Your task to perform on an android device: set the stopwatch Image 0: 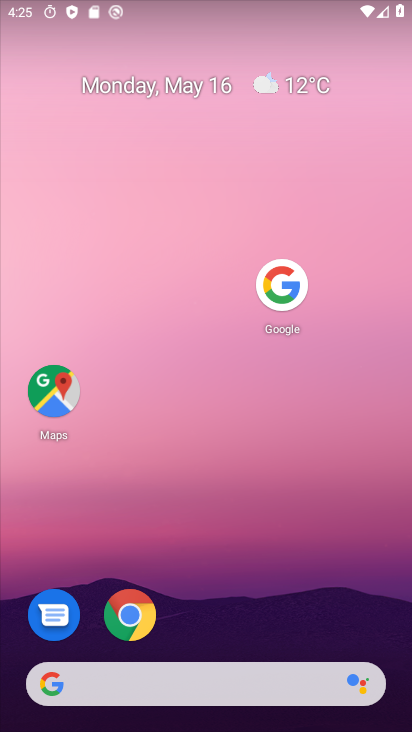
Step 0: drag from (214, 587) to (16, 131)
Your task to perform on an android device: set the stopwatch Image 1: 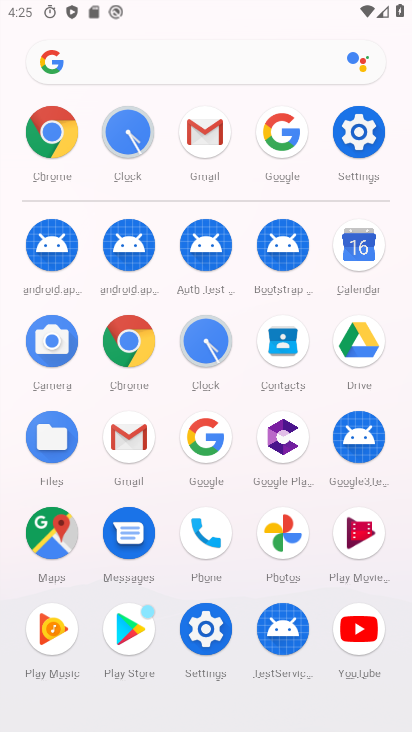
Step 1: click (213, 394)
Your task to perform on an android device: set the stopwatch Image 2: 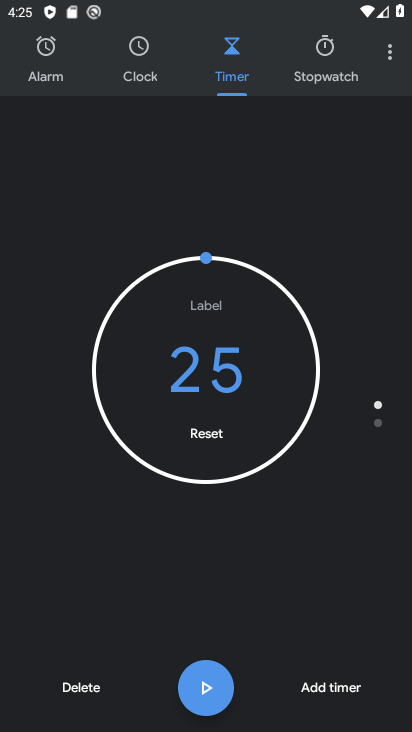
Step 2: click (306, 59)
Your task to perform on an android device: set the stopwatch Image 3: 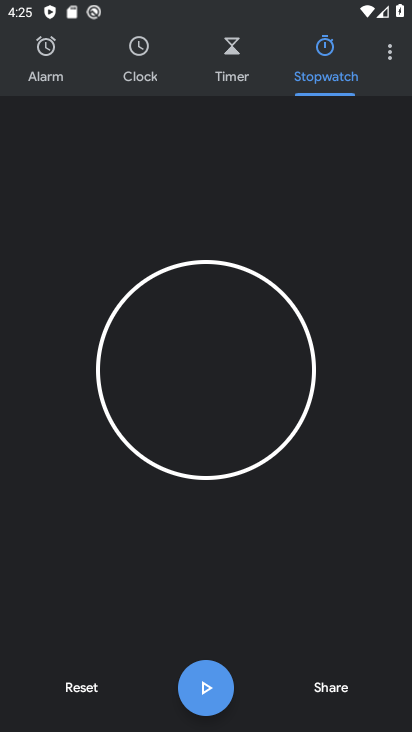
Step 3: click (209, 680)
Your task to perform on an android device: set the stopwatch Image 4: 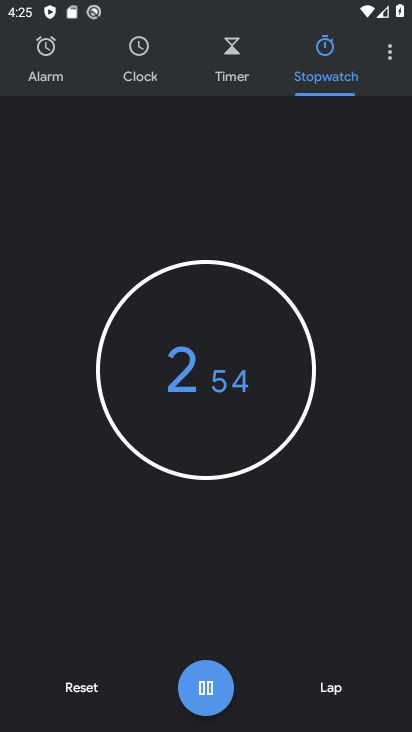
Step 4: click (202, 698)
Your task to perform on an android device: set the stopwatch Image 5: 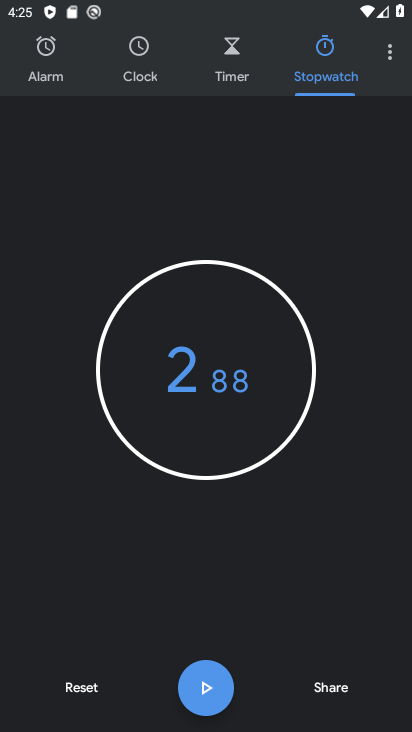
Step 5: task complete